Your task to perform on an android device: Open the web browser Image 0: 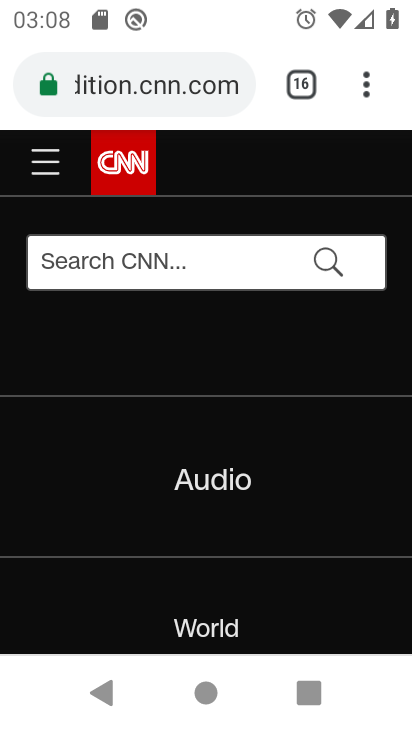
Step 0: task complete